Your task to perform on an android device: open a new tab in the chrome app Image 0: 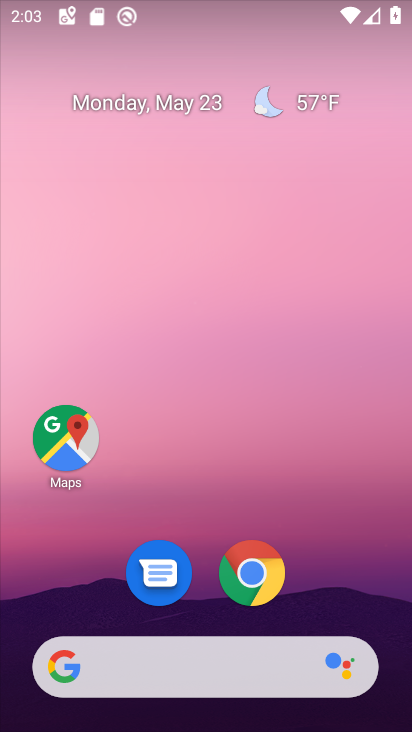
Step 0: click (240, 574)
Your task to perform on an android device: open a new tab in the chrome app Image 1: 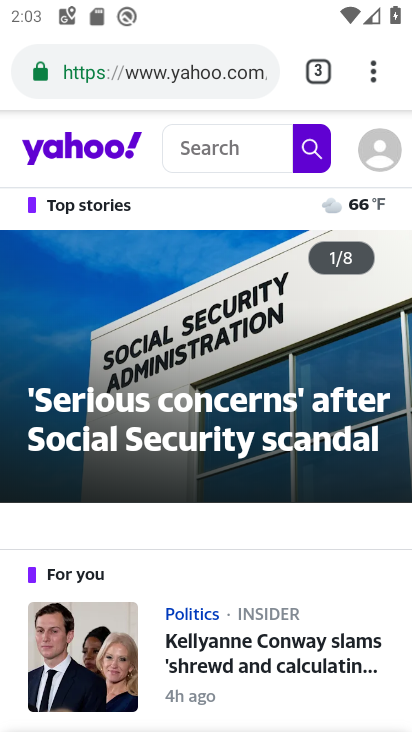
Step 1: click (364, 59)
Your task to perform on an android device: open a new tab in the chrome app Image 2: 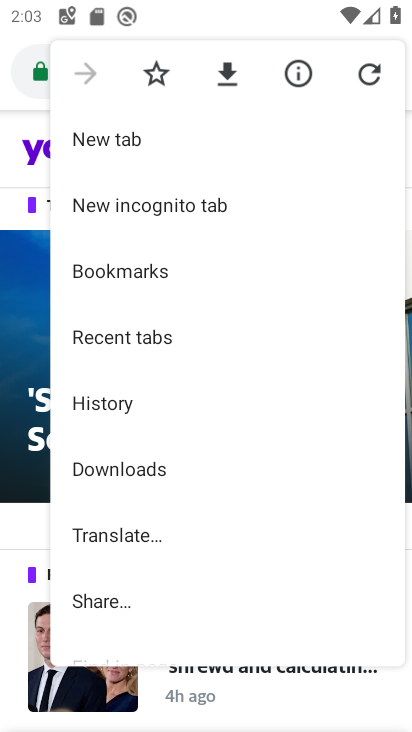
Step 2: click (180, 142)
Your task to perform on an android device: open a new tab in the chrome app Image 3: 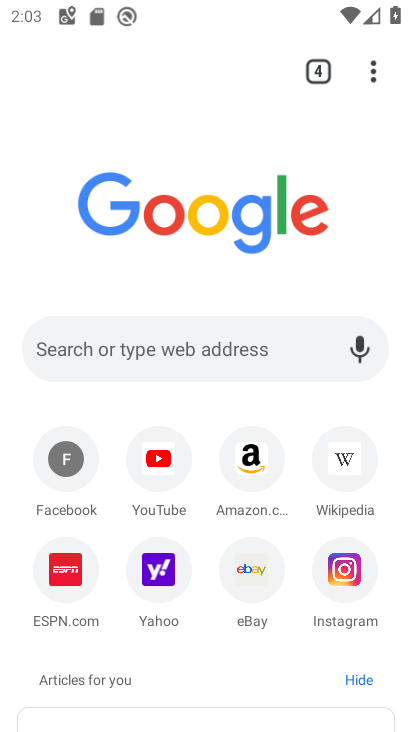
Step 3: task complete